Your task to perform on an android device: turn off improve location accuracy Image 0: 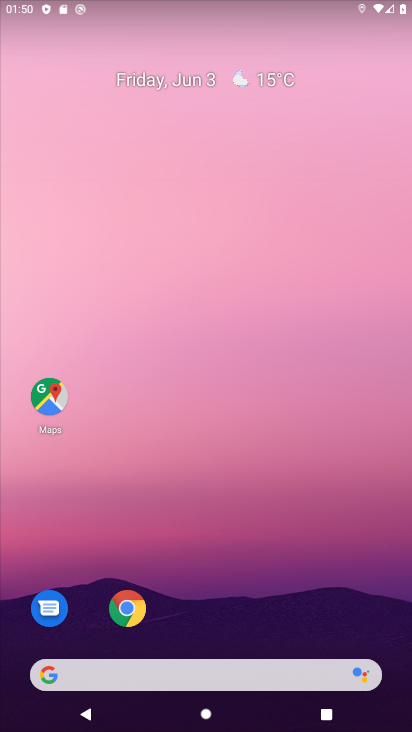
Step 0: drag from (279, 556) to (265, 109)
Your task to perform on an android device: turn off improve location accuracy Image 1: 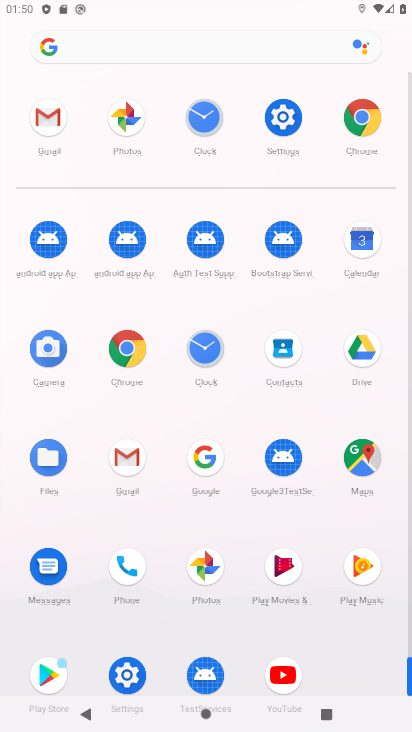
Step 1: click (280, 119)
Your task to perform on an android device: turn off improve location accuracy Image 2: 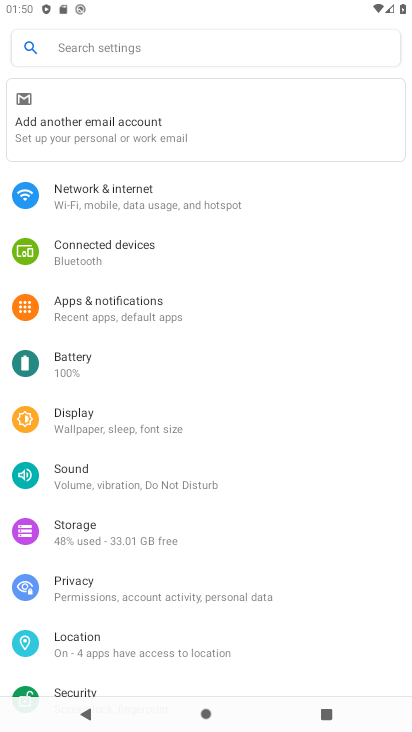
Step 2: drag from (121, 577) to (148, 322)
Your task to perform on an android device: turn off improve location accuracy Image 3: 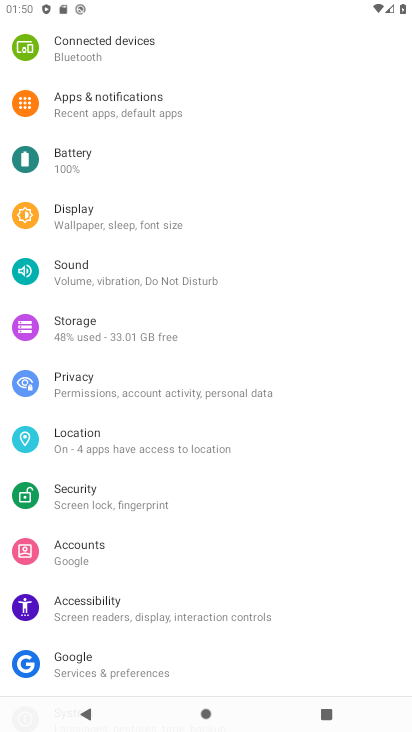
Step 3: click (143, 448)
Your task to perform on an android device: turn off improve location accuracy Image 4: 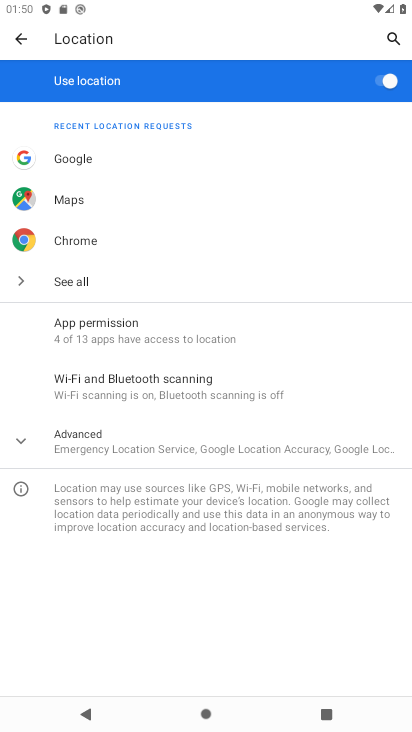
Step 4: click (92, 434)
Your task to perform on an android device: turn off improve location accuracy Image 5: 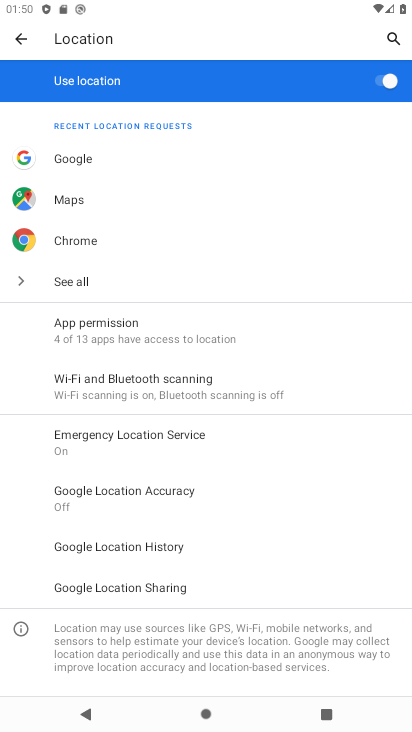
Step 5: click (157, 489)
Your task to perform on an android device: turn off improve location accuracy Image 6: 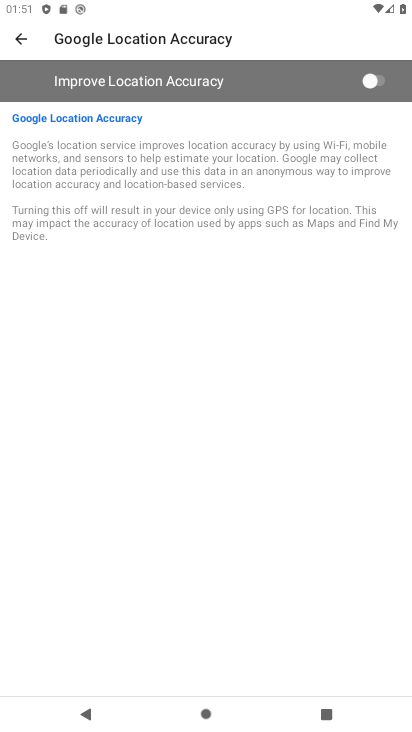
Step 6: task complete